Your task to perform on an android device: Search for usb-a on costco.com, select the first entry, add it to the cart, then select checkout. Image 0: 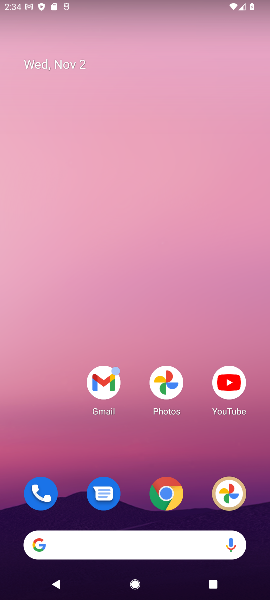
Step 0: click (165, 496)
Your task to perform on an android device: Search for usb-a on costco.com, select the first entry, add it to the cart, then select checkout. Image 1: 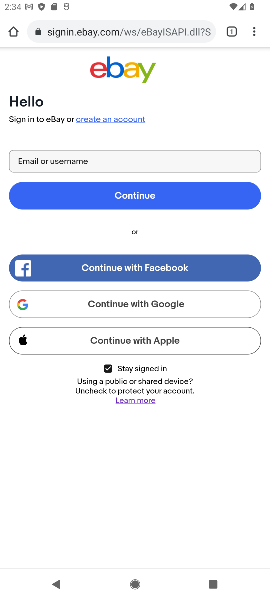
Step 1: click (158, 29)
Your task to perform on an android device: Search for usb-a on costco.com, select the first entry, add it to the cart, then select checkout. Image 2: 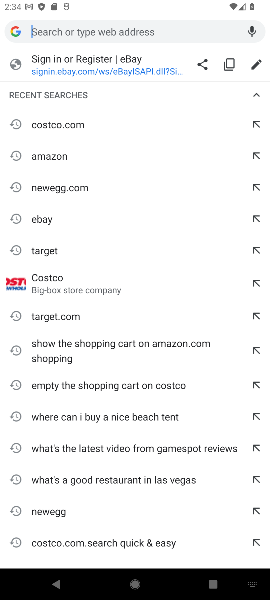
Step 2: click (66, 125)
Your task to perform on an android device: Search for usb-a on costco.com, select the first entry, add it to the cart, then select checkout. Image 3: 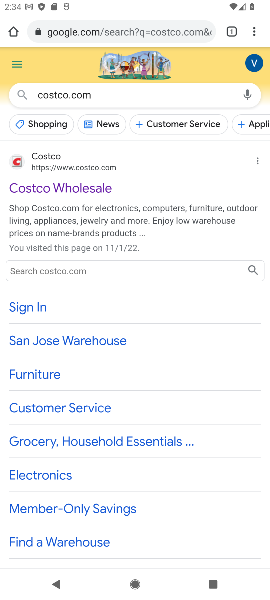
Step 3: click (66, 187)
Your task to perform on an android device: Search for usb-a on costco.com, select the first entry, add it to the cart, then select checkout. Image 4: 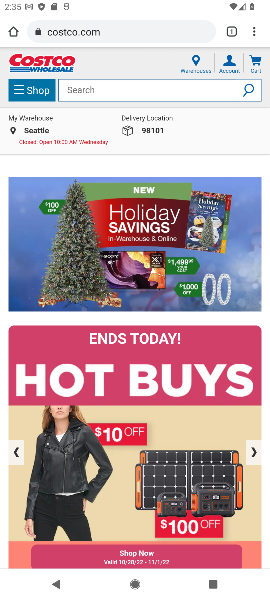
Step 4: click (144, 95)
Your task to perform on an android device: Search for usb-a on costco.com, select the first entry, add it to the cart, then select checkout. Image 5: 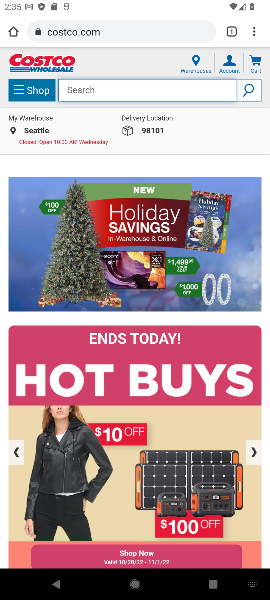
Step 5: type "usb-a"
Your task to perform on an android device: Search for usb-a on costco.com, select the first entry, add it to the cart, then select checkout. Image 6: 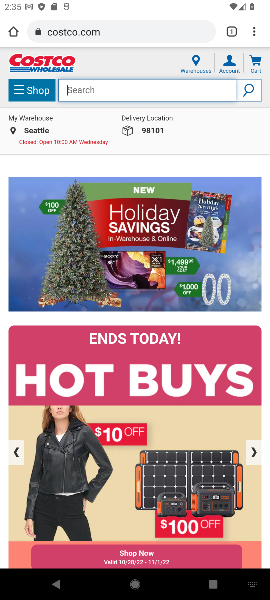
Step 6: press enter
Your task to perform on an android device: Search for usb-a on costco.com, select the first entry, add it to the cart, then select checkout. Image 7: 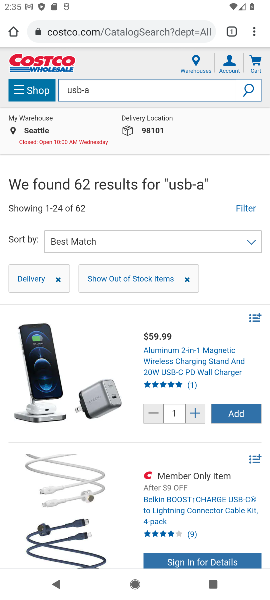
Step 7: click (62, 355)
Your task to perform on an android device: Search for usb-a on costco.com, select the first entry, add it to the cart, then select checkout. Image 8: 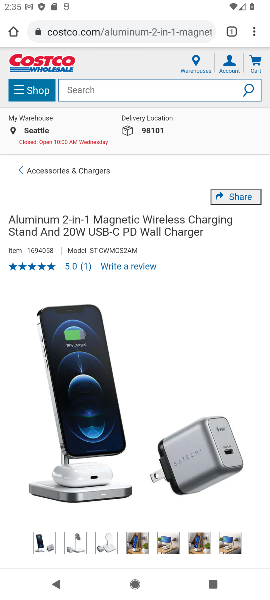
Step 8: press back button
Your task to perform on an android device: Search for usb-a on costco.com, select the first entry, add it to the cart, then select checkout. Image 9: 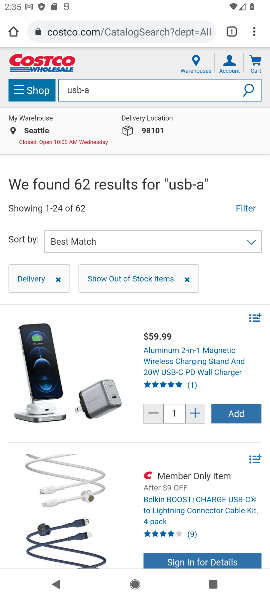
Step 9: drag from (89, 422) to (108, 151)
Your task to perform on an android device: Search for usb-a on costco.com, select the first entry, add it to the cart, then select checkout. Image 10: 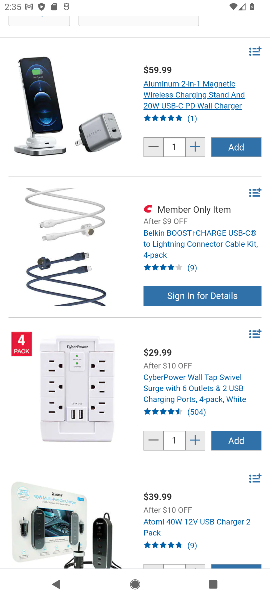
Step 10: drag from (91, 478) to (58, 225)
Your task to perform on an android device: Search for usb-a on costco.com, select the first entry, add it to the cart, then select checkout. Image 11: 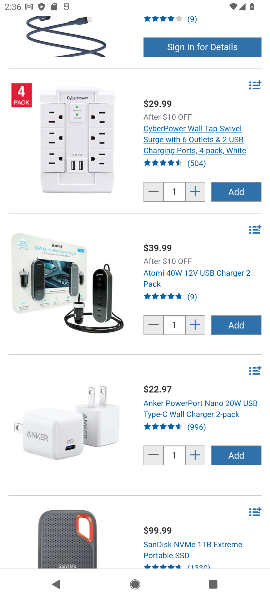
Step 11: drag from (116, 500) to (83, 288)
Your task to perform on an android device: Search for usb-a on costco.com, select the first entry, add it to the cart, then select checkout. Image 12: 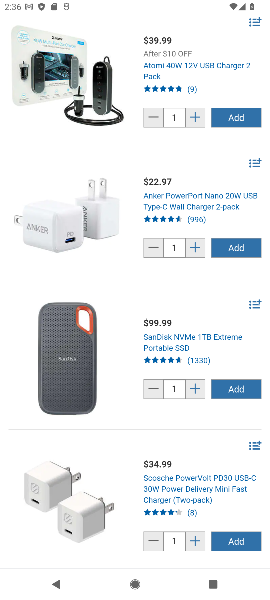
Step 12: drag from (102, 470) to (92, 199)
Your task to perform on an android device: Search for usb-a on costco.com, select the first entry, add it to the cart, then select checkout. Image 13: 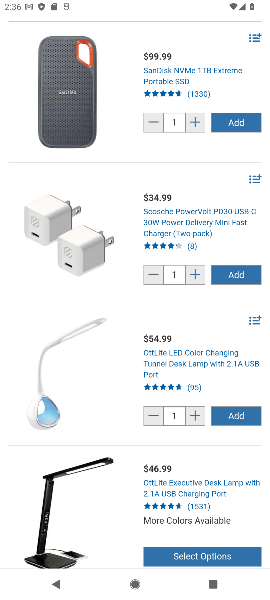
Step 13: drag from (101, 449) to (89, 162)
Your task to perform on an android device: Search for usb-a on costco.com, select the first entry, add it to the cart, then select checkout. Image 14: 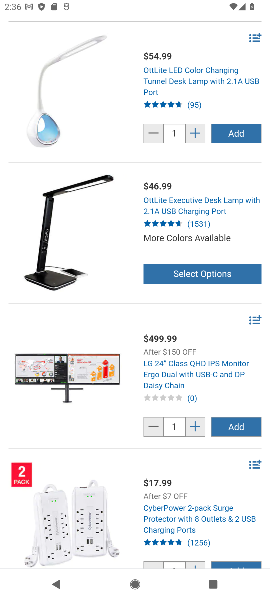
Step 14: drag from (96, 76) to (111, 525)
Your task to perform on an android device: Search for usb-a on costco.com, select the first entry, add it to the cart, then select checkout. Image 15: 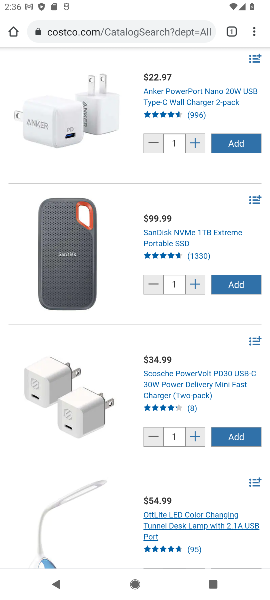
Step 15: drag from (80, 99) to (44, 455)
Your task to perform on an android device: Search for usb-a on costco.com, select the first entry, add it to the cart, then select checkout. Image 16: 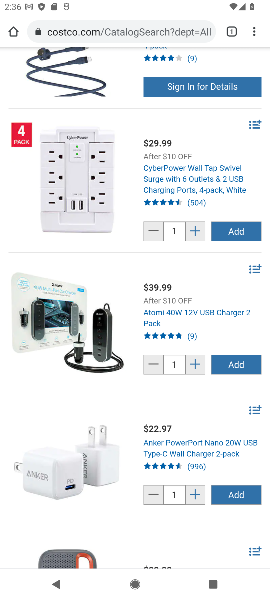
Step 16: drag from (86, 80) to (119, 376)
Your task to perform on an android device: Search for usb-a on costco.com, select the first entry, add it to the cart, then select checkout. Image 17: 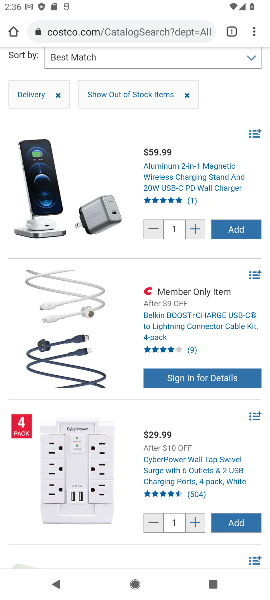
Step 17: click (56, 175)
Your task to perform on an android device: Search for usb-a on costco.com, select the first entry, add it to the cart, then select checkout. Image 18: 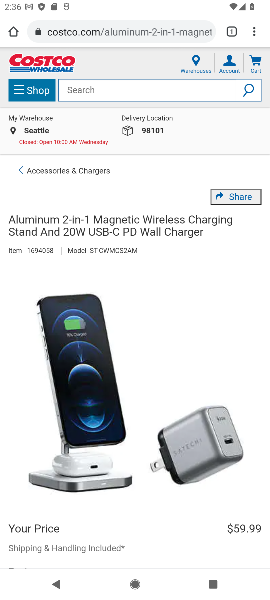
Step 18: drag from (167, 469) to (188, 132)
Your task to perform on an android device: Search for usb-a on costco.com, select the first entry, add it to the cart, then select checkout. Image 19: 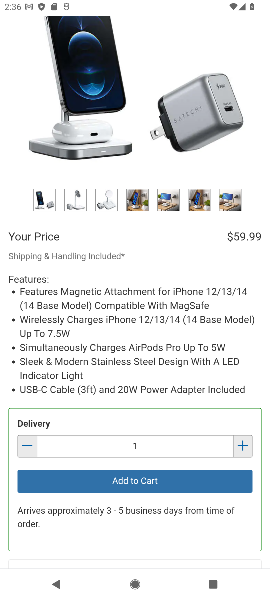
Step 19: click (173, 488)
Your task to perform on an android device: Search for usb-a on costco.com, select the first entry, add it to the cart, then select checkout. Image 20: 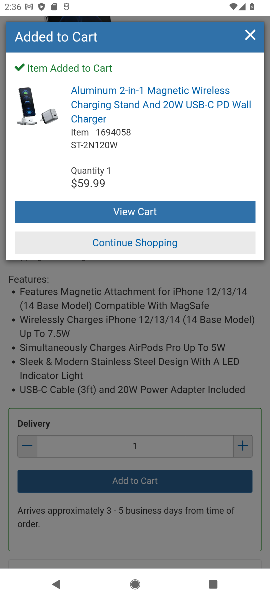
Step 20: click (133, 212)
Your task to perform on an android device: Search for usb-a on costco.com, select the first entry, add it to the cart, then select checkout. Image 21: 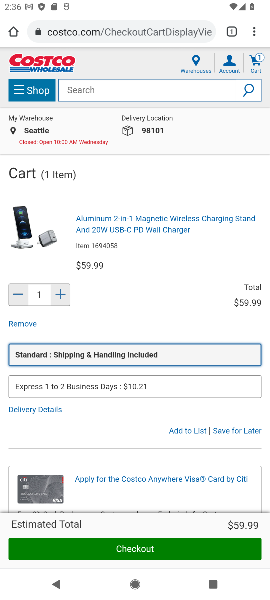
Step 21: click (166, 547)
Your task to perform on an android device: Search for usb-a on costco.com, select the first entry, add it to the cart, then select checkout. Image 22: 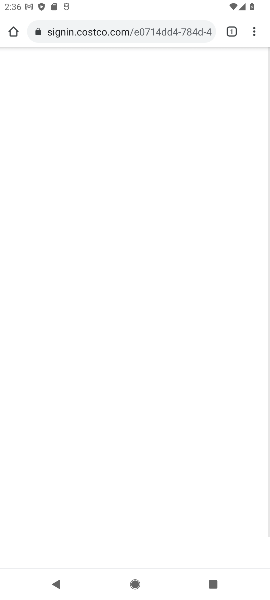
Step 22: task complete